Your task to perform on an android device: What's the weather? Image 0: 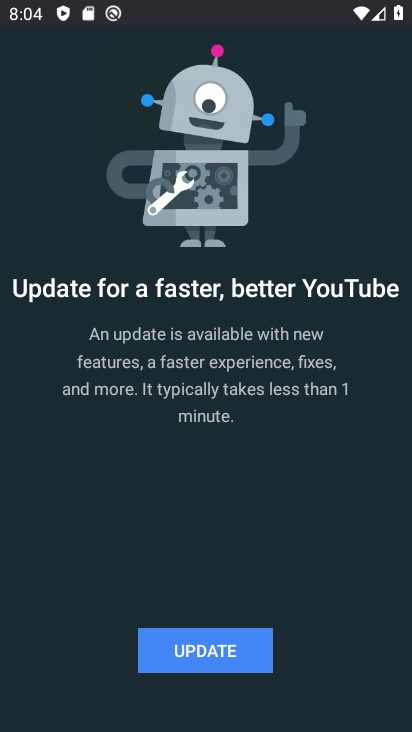
Step 0: press home button
Your task to perform on an android device: What's the weather? Image 1: 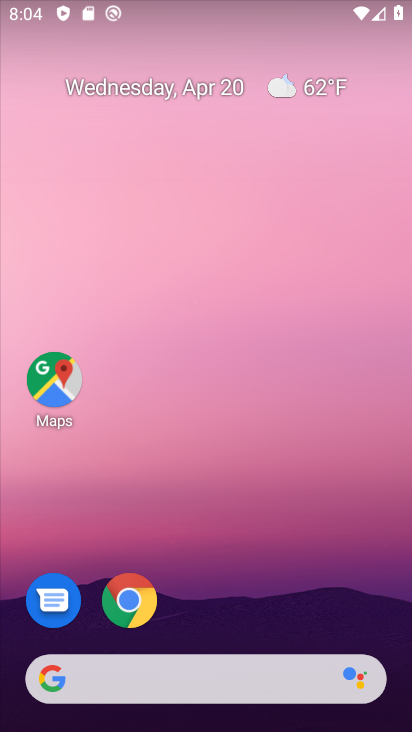
Step 1: click (280, 88)
Your task to perform on an android device: What's the weather? Image 2: 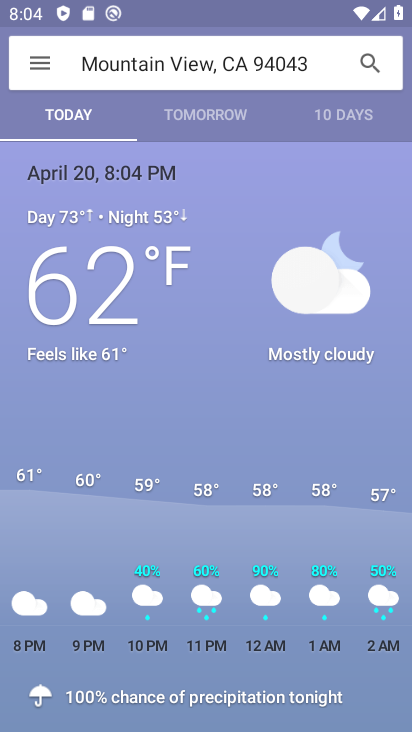
Step 2: task complete